Your task to perform on an android device: Set the phone to "Do not disturb". Image 0: 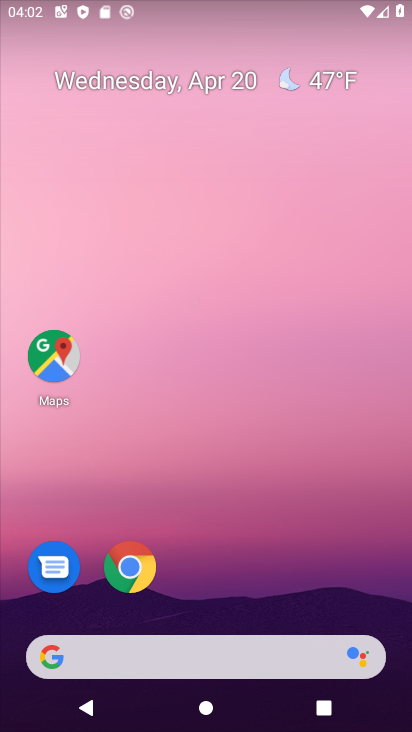
Step 0: drag from (149, 12) to (80, 556)
Your task to perform on an android device: Set the phone to "Do not disturb". Image 1: 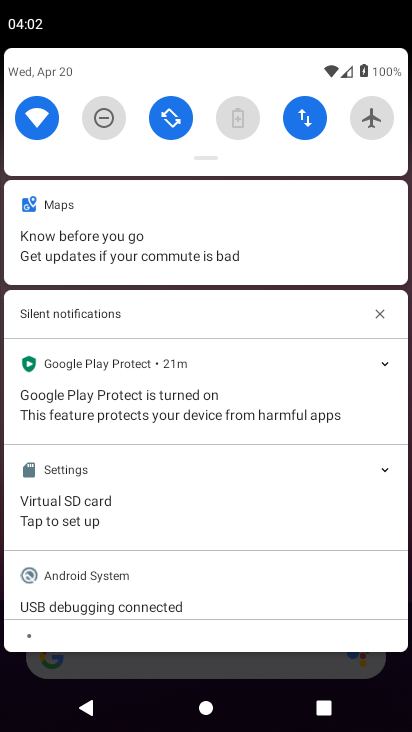
Step 1: click (114, 106)
Your task to perform on an android device: Set the phone to "Do not disturb". Image 2: 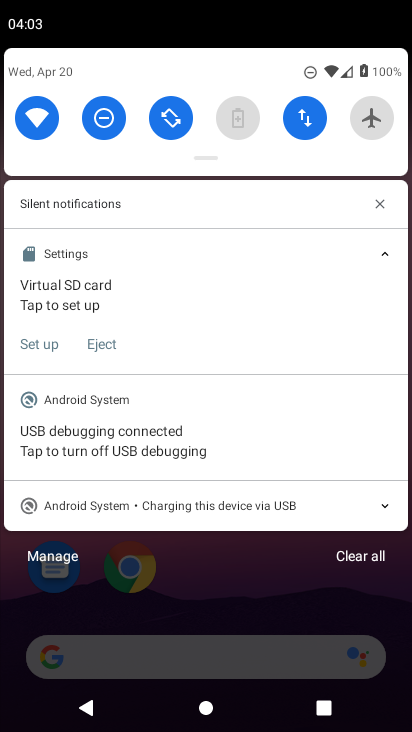
Step 2: task complete